Your task to perform on an android device: Open wifi settings Image 0: 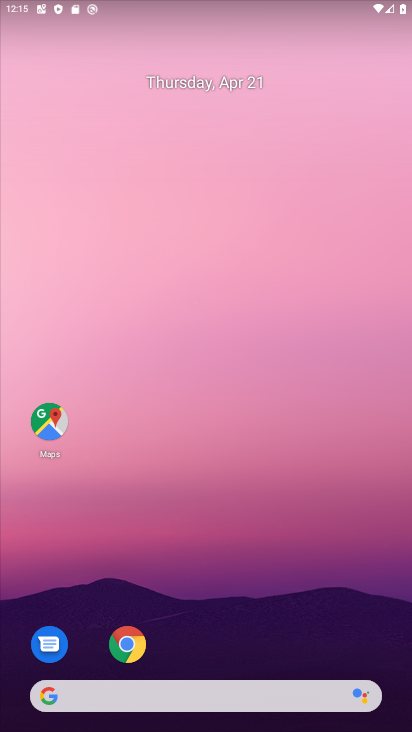
Step 0: drag from (129, 34) to (151, 565)
Your task to perform on an android device: Open wifi settings Image 1: 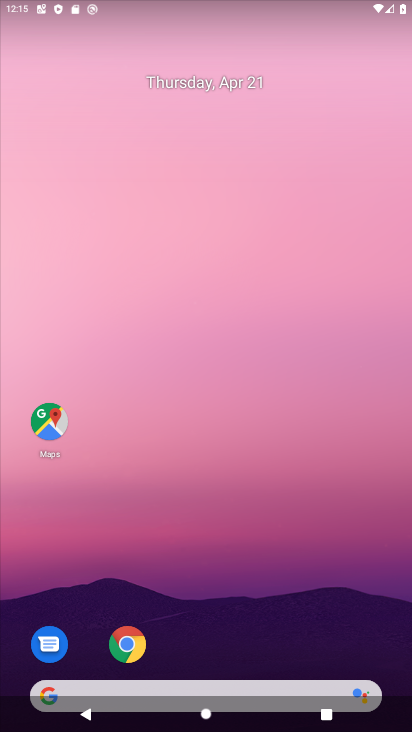
Step 1: drag from (60, 58) to (100, 345)
Your task to perform on an android device: Open wifi settings Image 2: 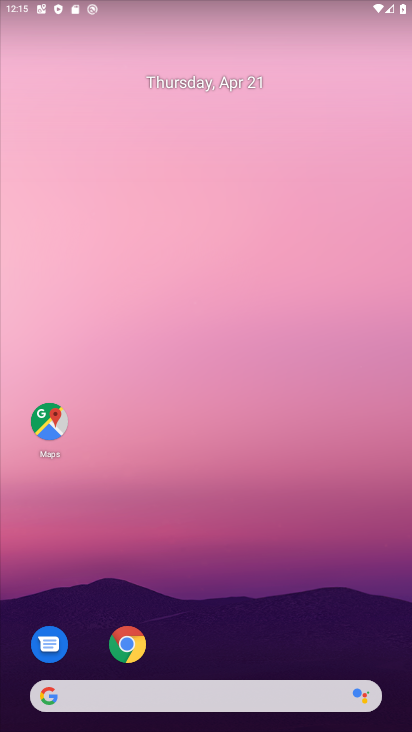
Step 2: drag from (41, 5) to (119, 336)
Your task to perform on an android device: Open wifi settings Image 3: 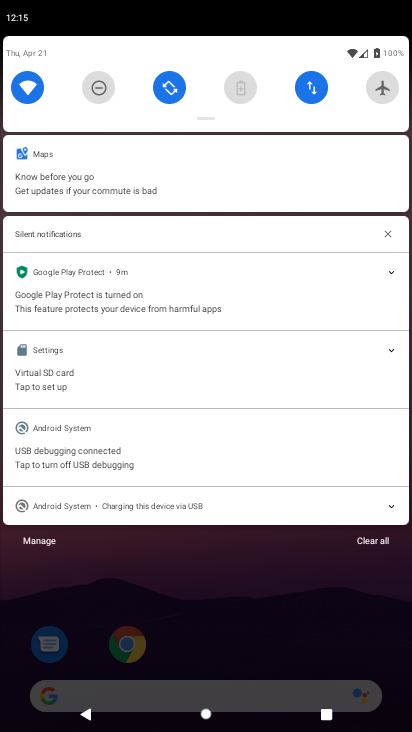
Step 3: click (25, 83)
Your task to perform on an android device: Open wifi settings Image 4: 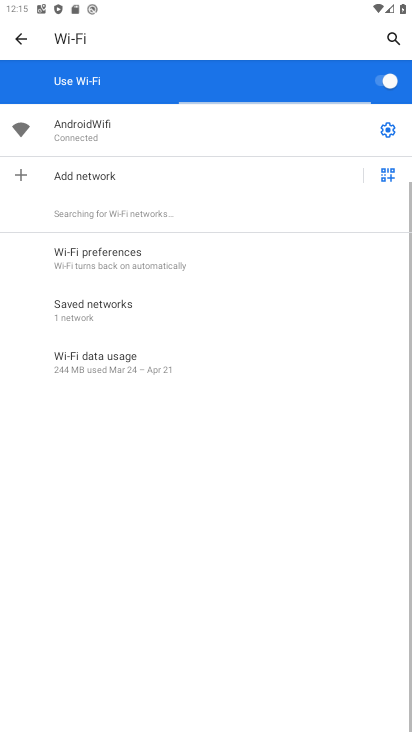
Step 4: task complete